Your task to perform on an android device: Is it going to rain today? Image 0: 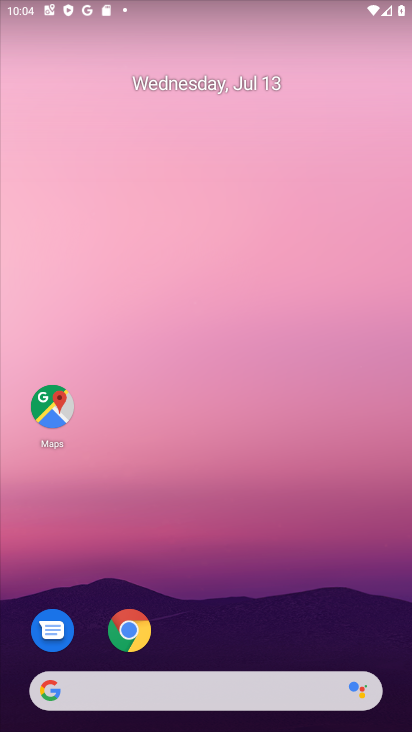
Step 0: drag from (316, 637) to (241, 93)
Your task to perform on an android device: Is it going to rain today? Image 1: 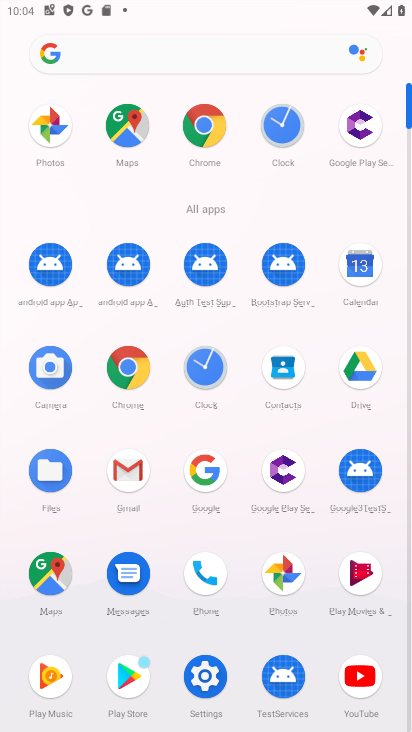
Step 1: click (204, 129)
Your task to perform on an android device: Is it going to rain today? Image 2: 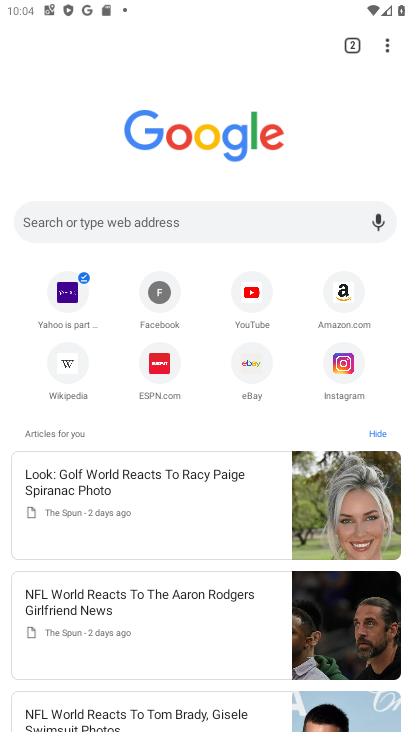
Step 2: click (167, 219)
Your task to perform on an android device: Is it going to rain today? Image 3: 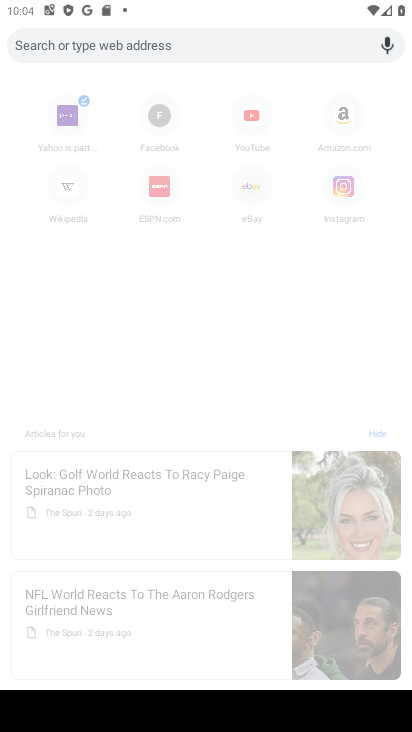
Step 3: type "Is it going to rain today?"
Your task to perform on an android device: Is it going to rain today? Image 4: 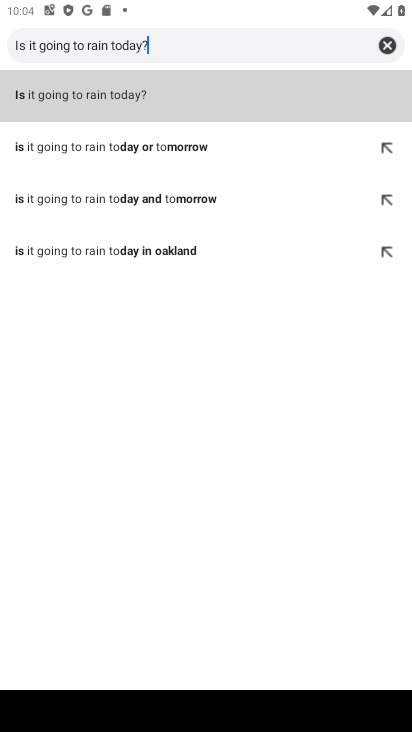
Step 4: click (136, 99)
Your task to perform on an android device: Is it going to rain today? Image 5: 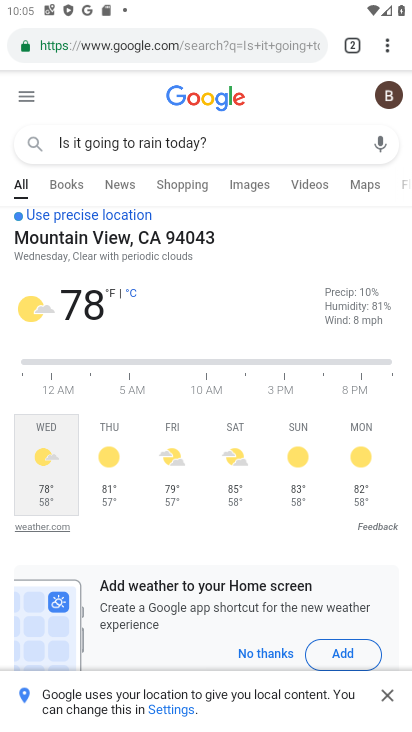
Step 5: task complete